Your task to perform on an android device: Open Google Image 0: 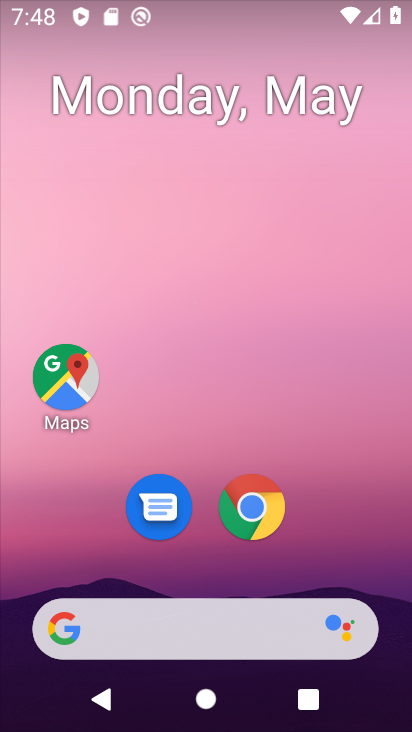
Step 0: drag from (332, 543) to (326, 211)
Your task to perform on an android device: Open Google Image 1: 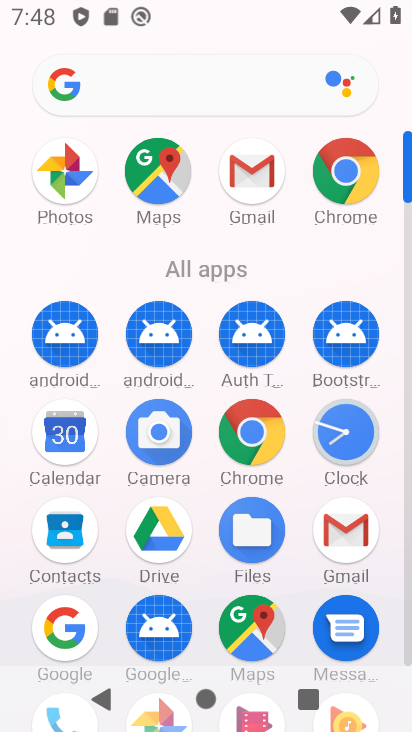
Step 1: click (60, 638)
Your task to perform on an android device: Open Google Image 2: 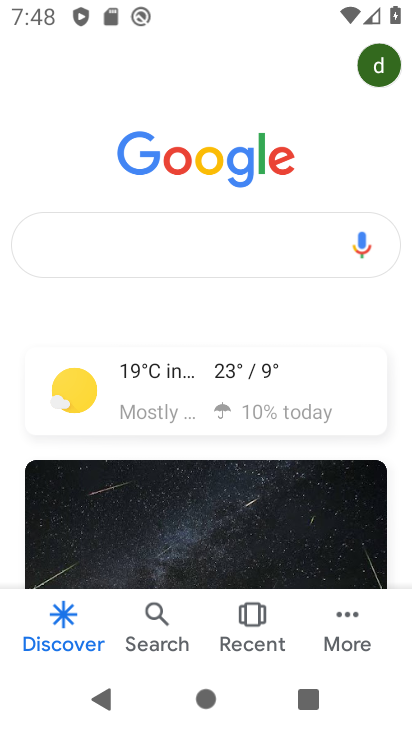
Step 2: task complete